Your task to perform on an android device: search for starred emails in the gmail app Image 0: 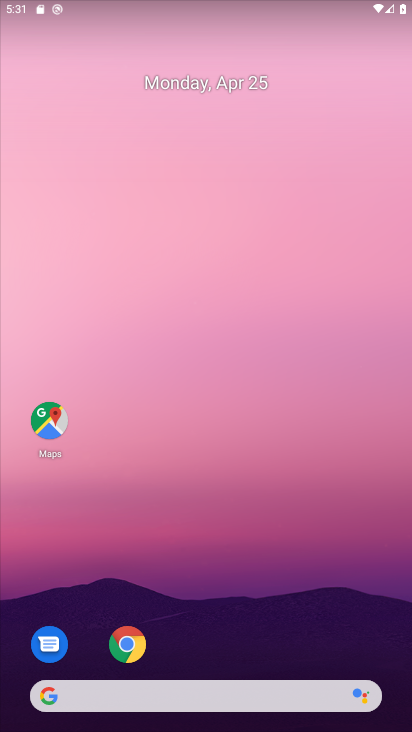
Step 0: drag from (283, 631) to (203, 69)
Your task to perform on an android device: search for starred emails in the gmail app Image 1: 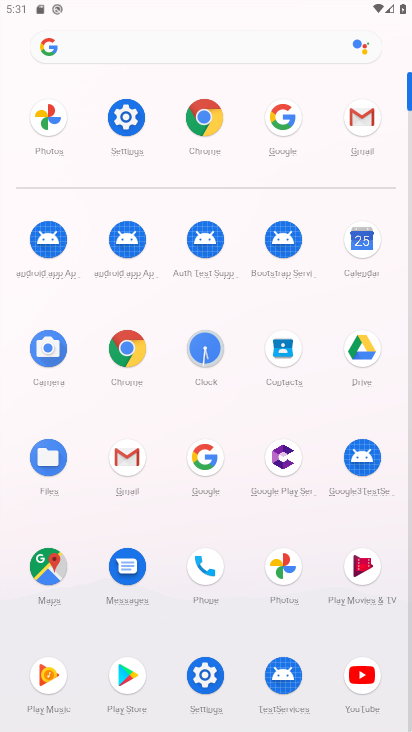
Step 1: click (363, 127)
Your task to perform on an android device: search for starred emails in the gmail app Image 2: 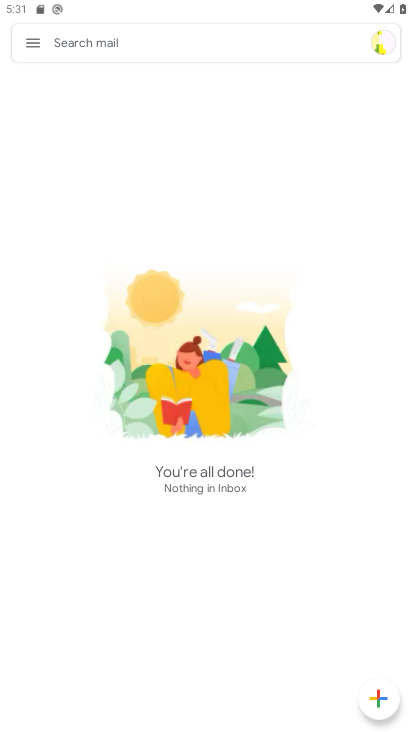
Step 2: click (143, 38)
Your task to perform on an android device: search for starred emails in the gmail app Image 3: 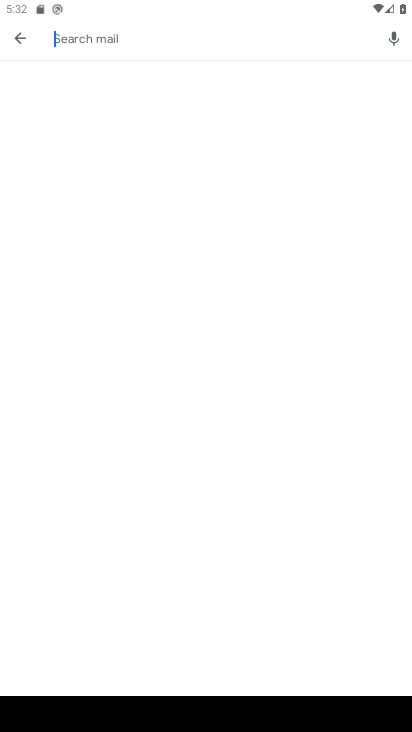
Step 3: type "starred"
Your task to perform on an android device: search for starred emails in the gmail app Image 4: 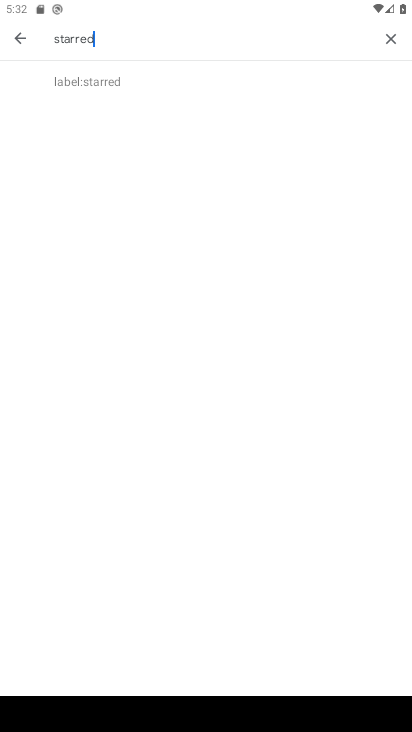
Step 4: click (96, 81)
Your task to perform on an android device: search for starred emails in the gmail app Image 5: 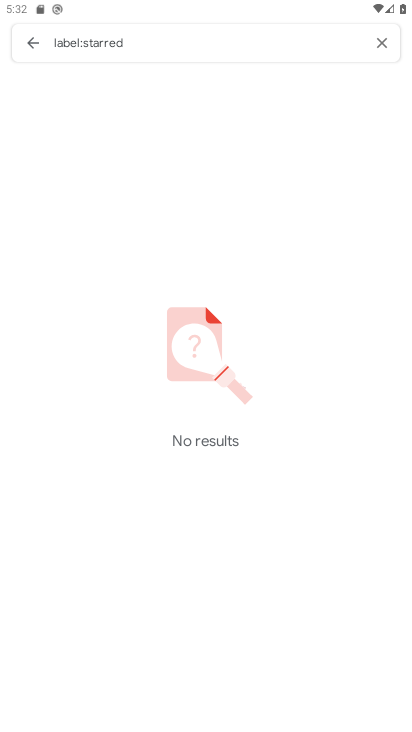
Step 5: task complete